Your task to perform on an android device: uninstall "McDonald's" Image 0: 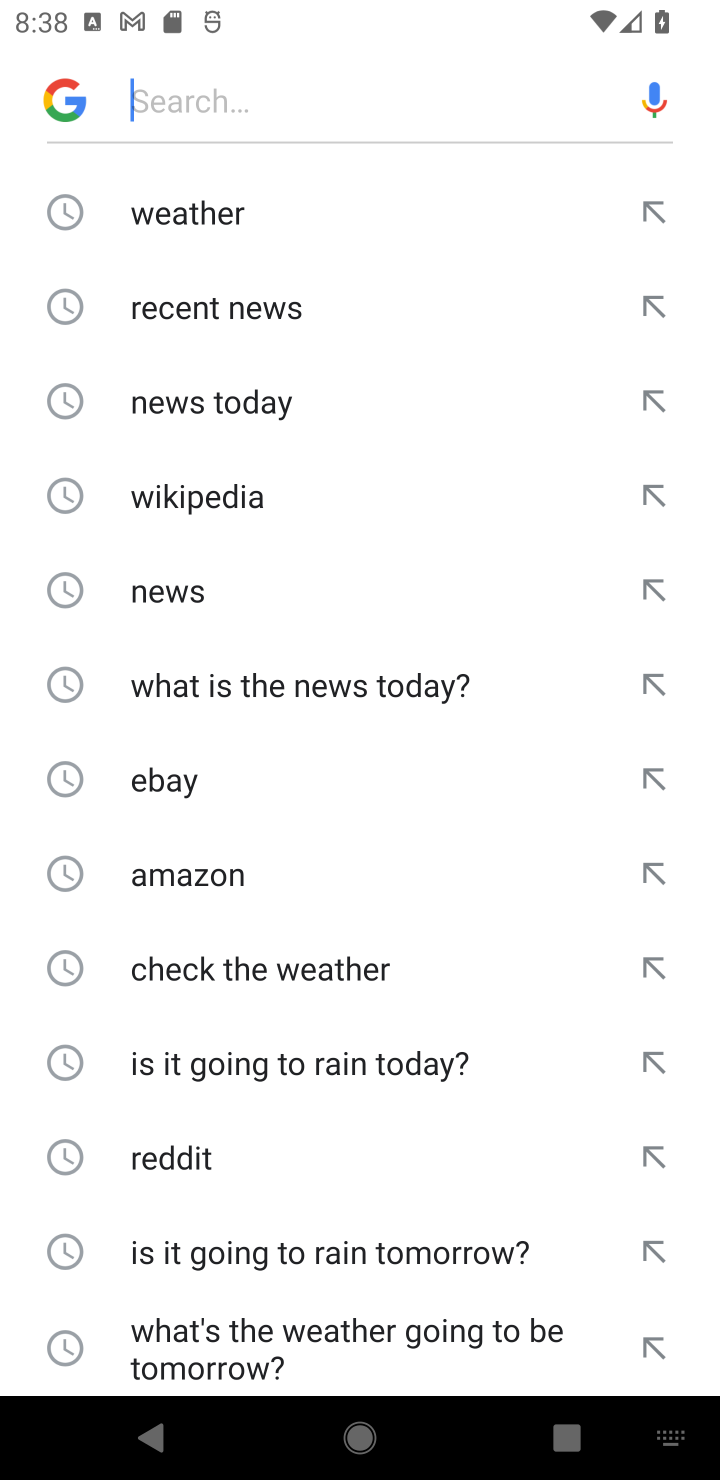
Step 0: press home button
Your task to perform on an android device: uninstall "McDonald's" Image 1: 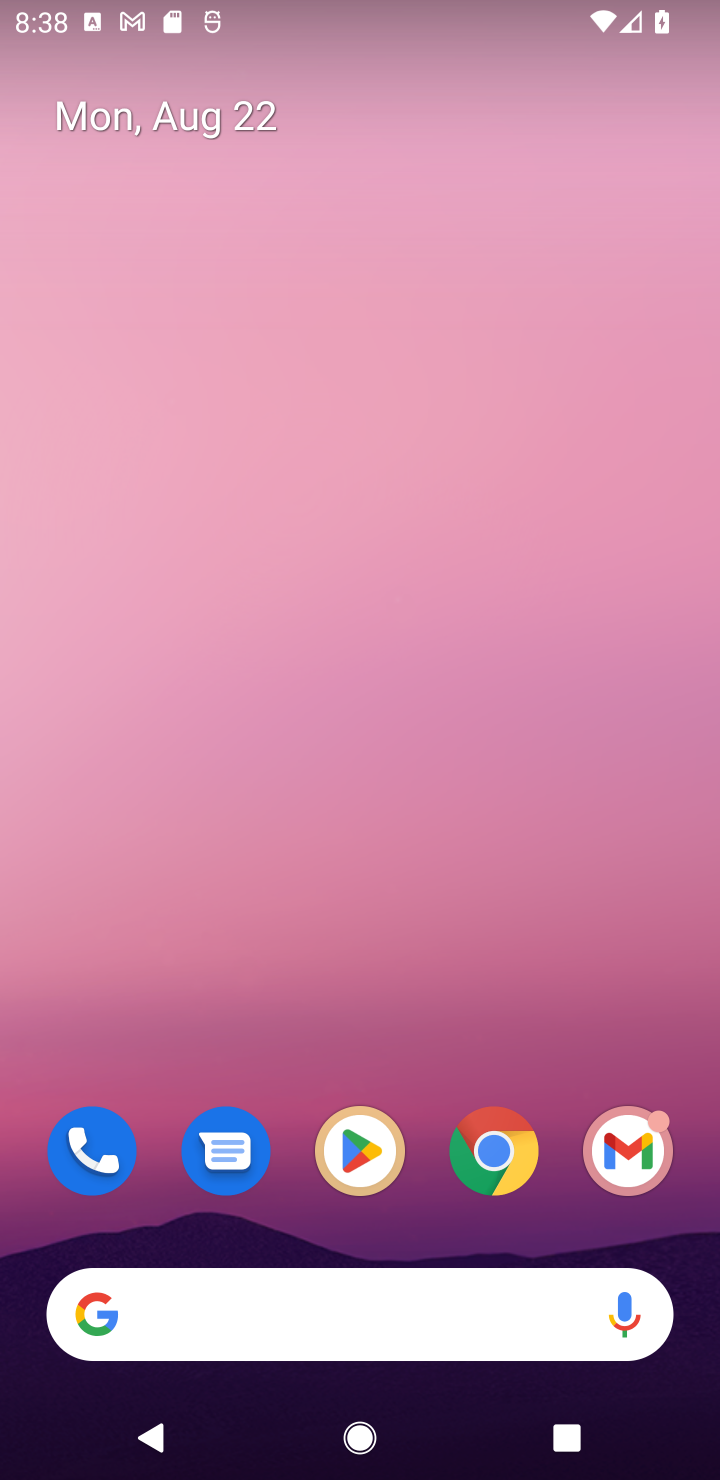
Step 1: click (366, 1158)
Your task to perform on an android device: uninstall "McDonald's" Image 2: 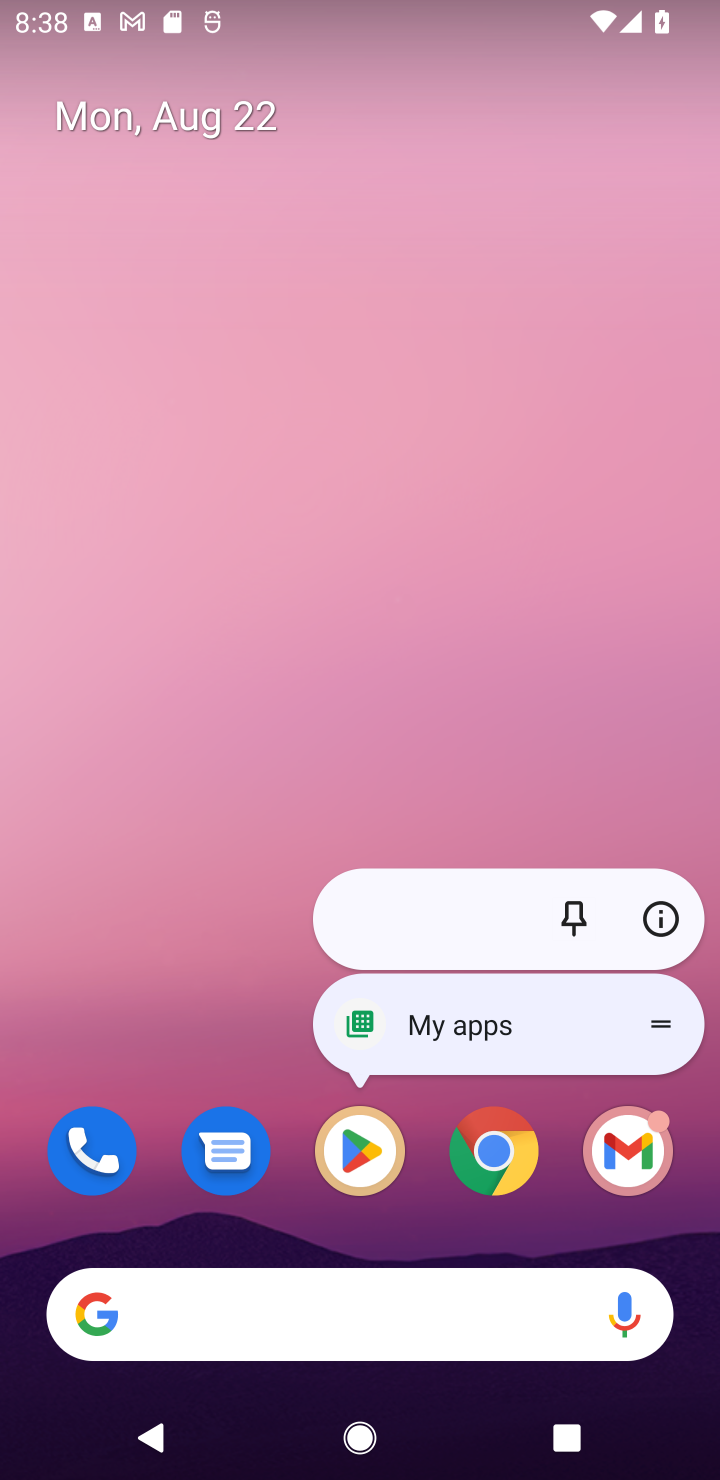
Step 2: click (368, 1118)
Your task to perform on an android device: uninstall "McDonald's" Image 3: 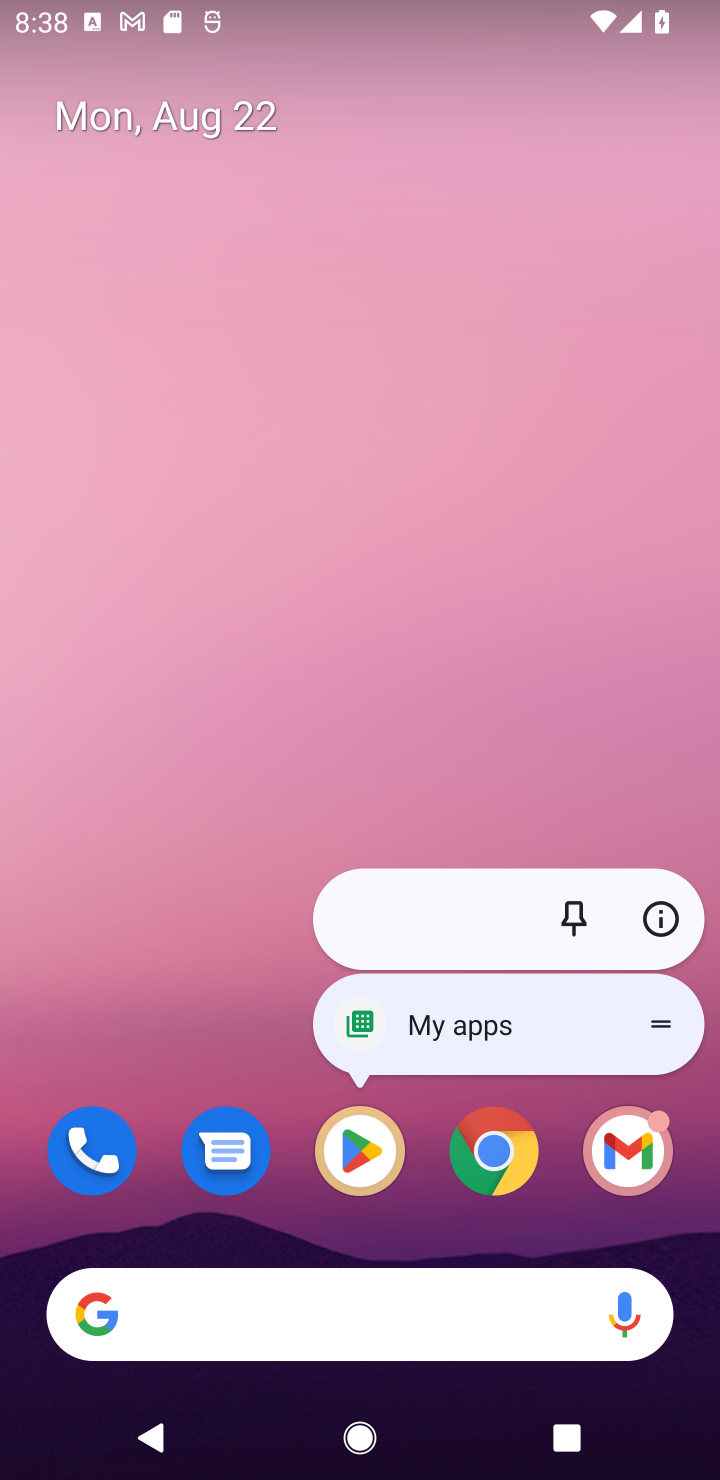
Step 3: click (358, 1142)
Your task to perform on an android device: uninstall "McDonald's" Image 4: 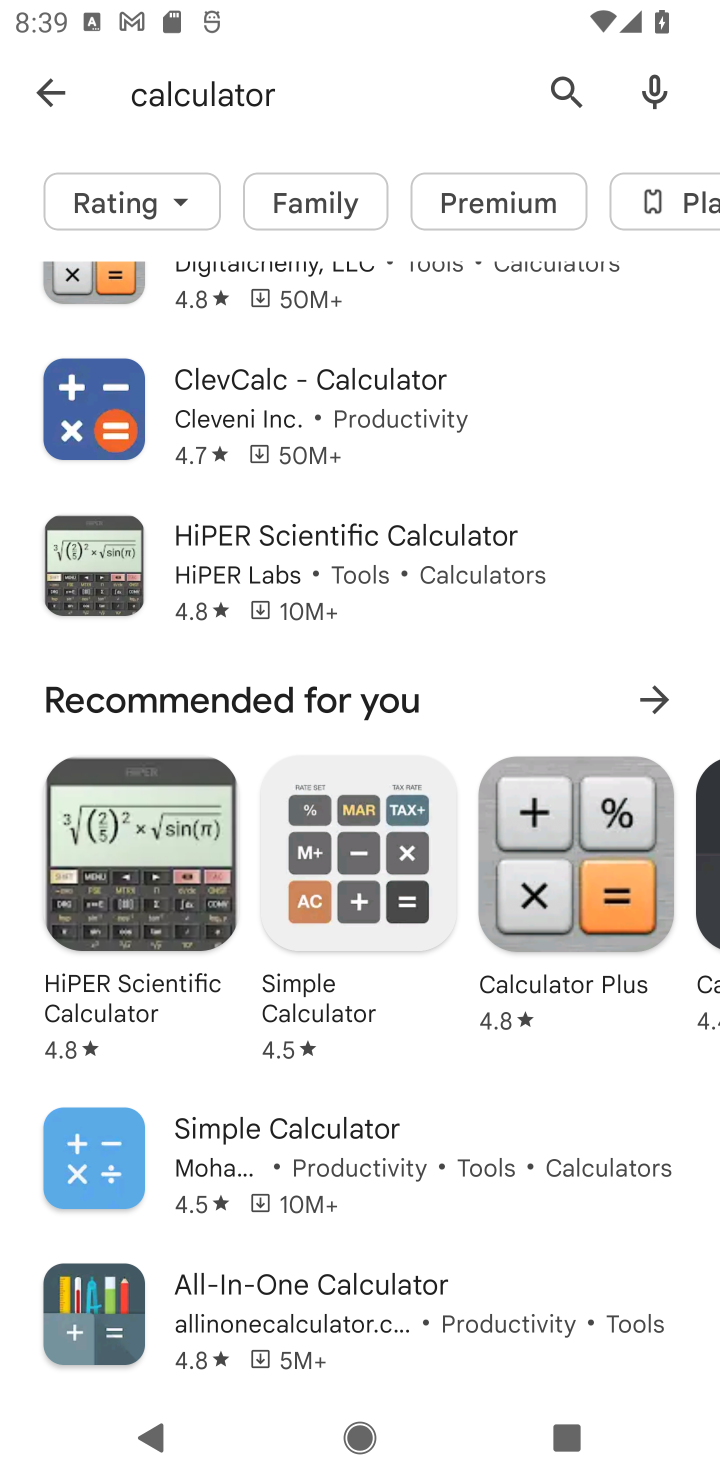
Step 4: click (564, 97)
Your task to perform on an android device: uninstall "McDonald's" Image 5: 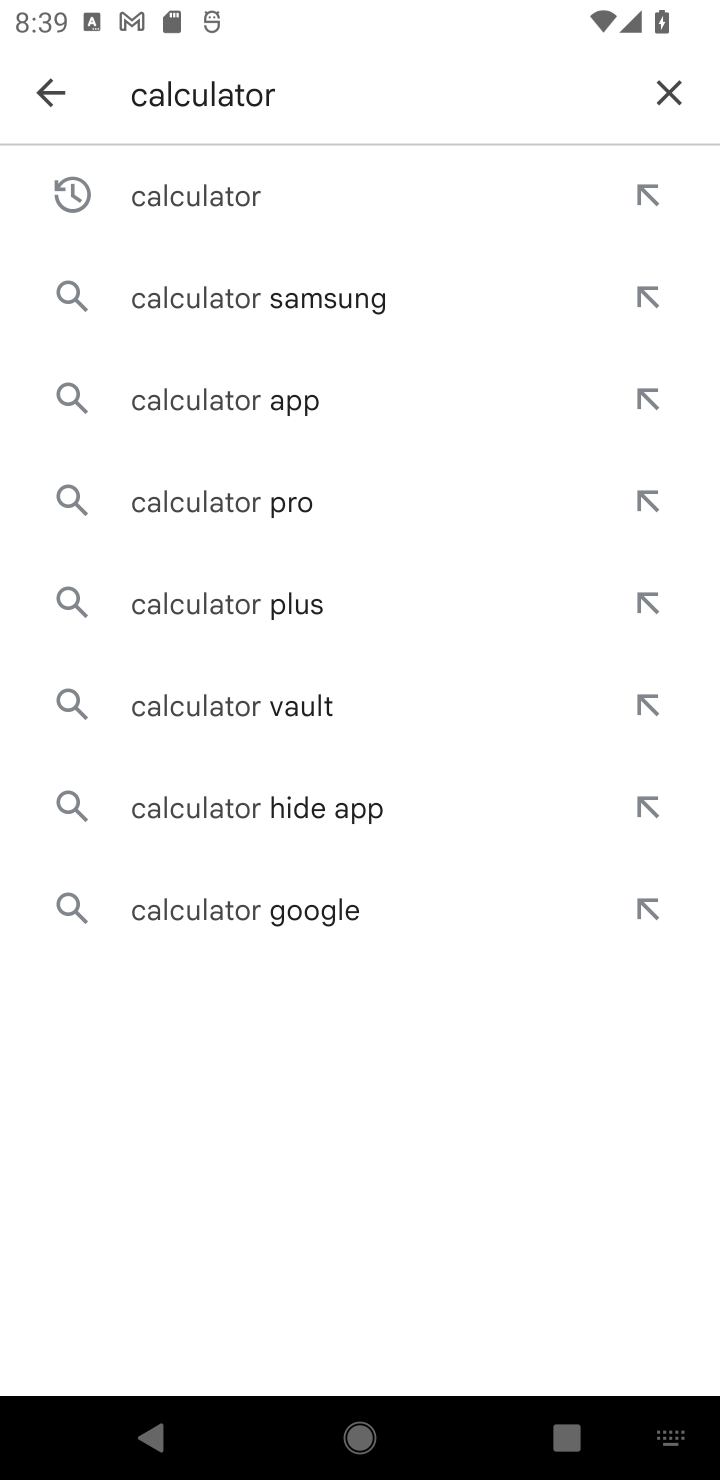
Step 5: click (656, 76)
Your task to perform on an android device: uninstall "McDonald's" Image 6: 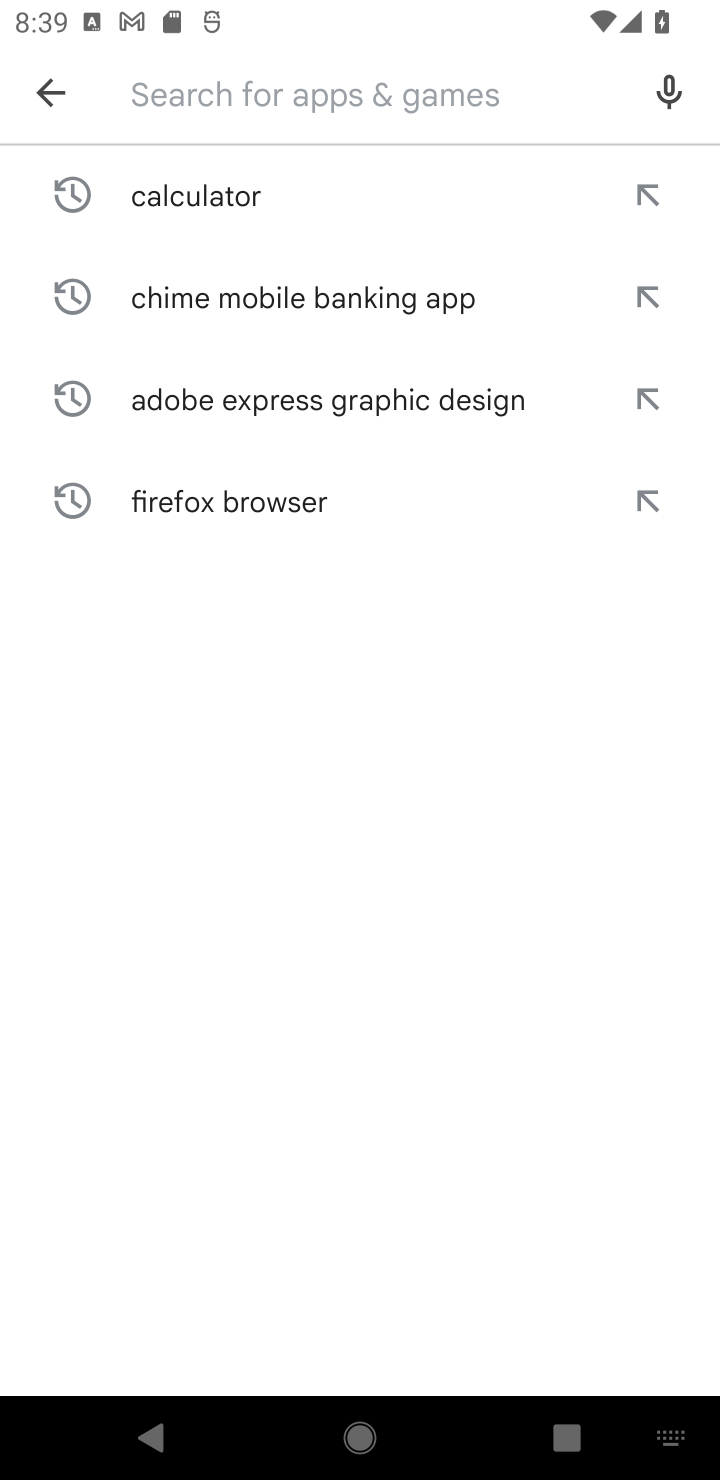
Step 6: type "McDonald's"
Your task to perform on an android device: uninstall "McDonald's" Image 7: 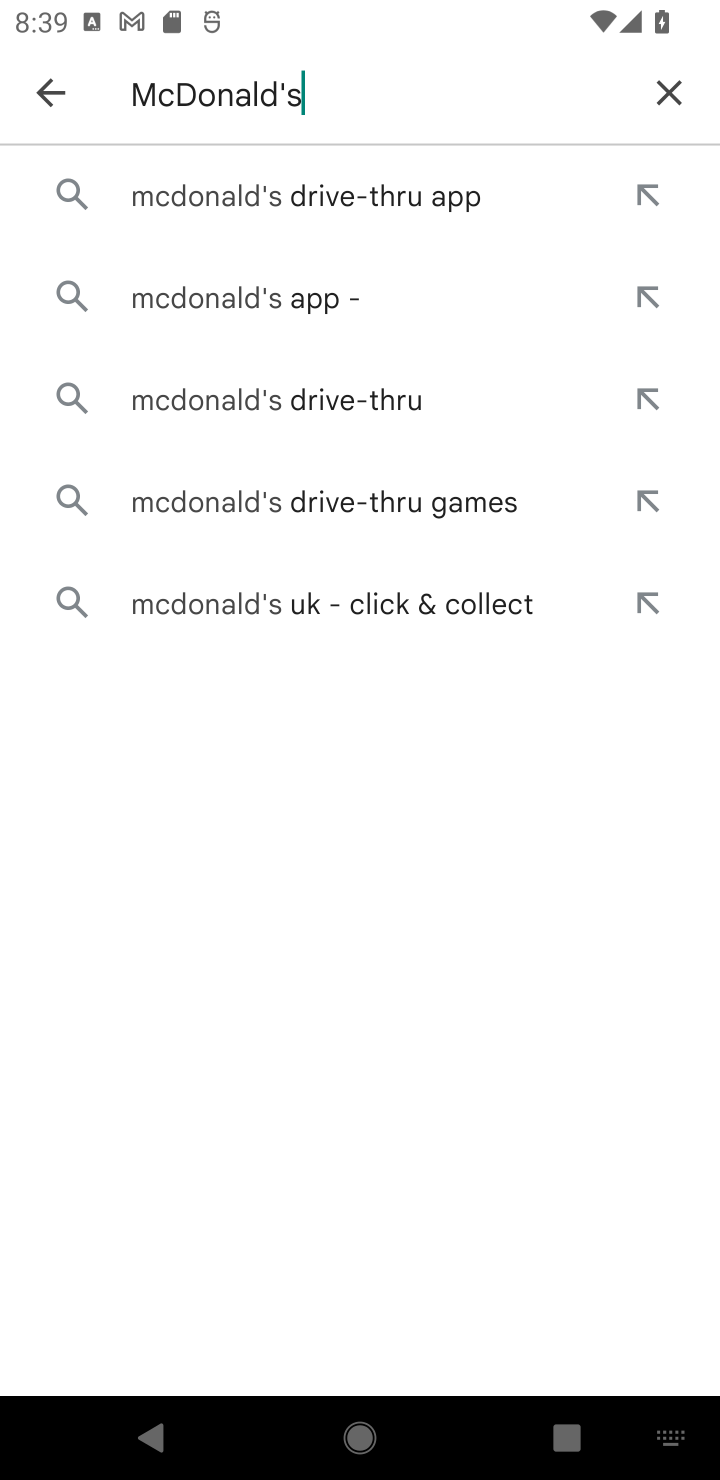
Step 7: click (223, 194)
Your task to perform on an android device: uninstall "McDonald's" Image 8: 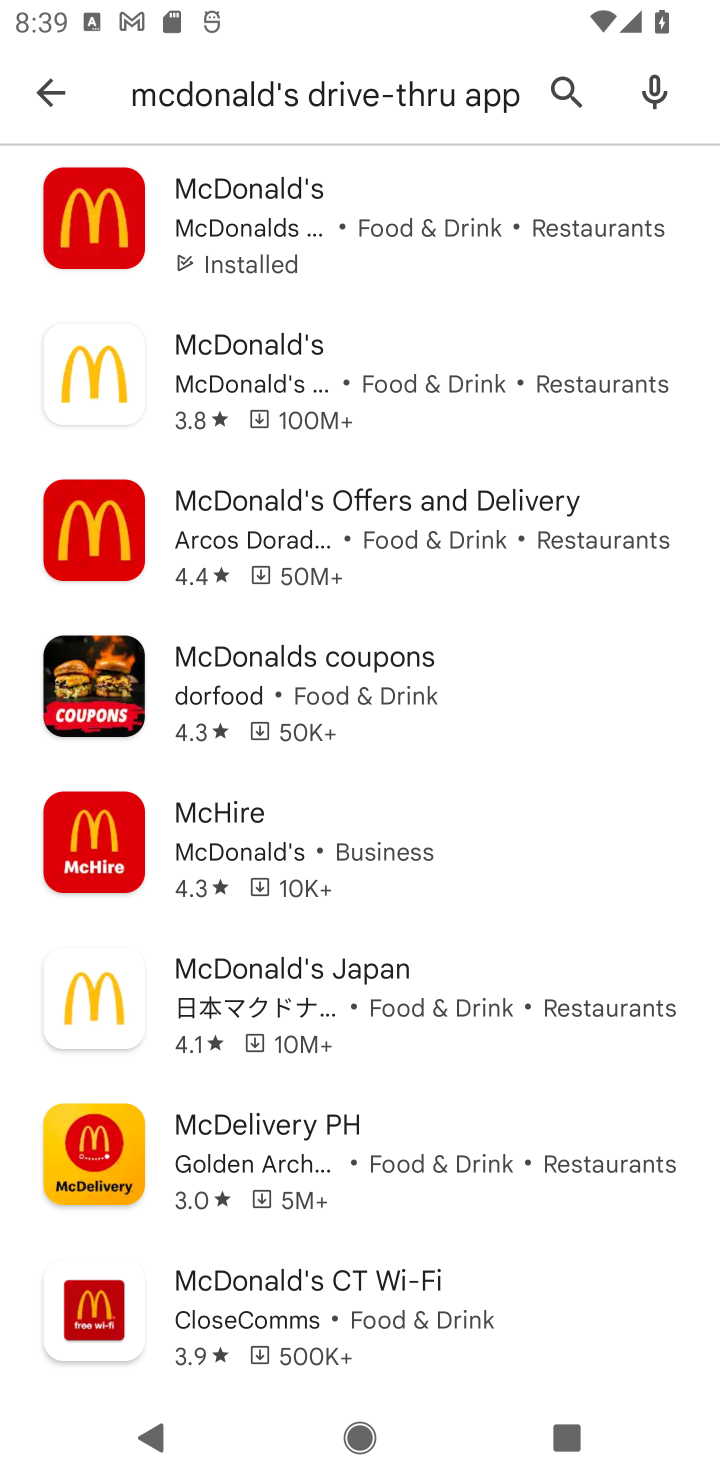
Step 8: click (304, 253)
Your task to perform on an android device: uninstall "McDonald's" Image 9: 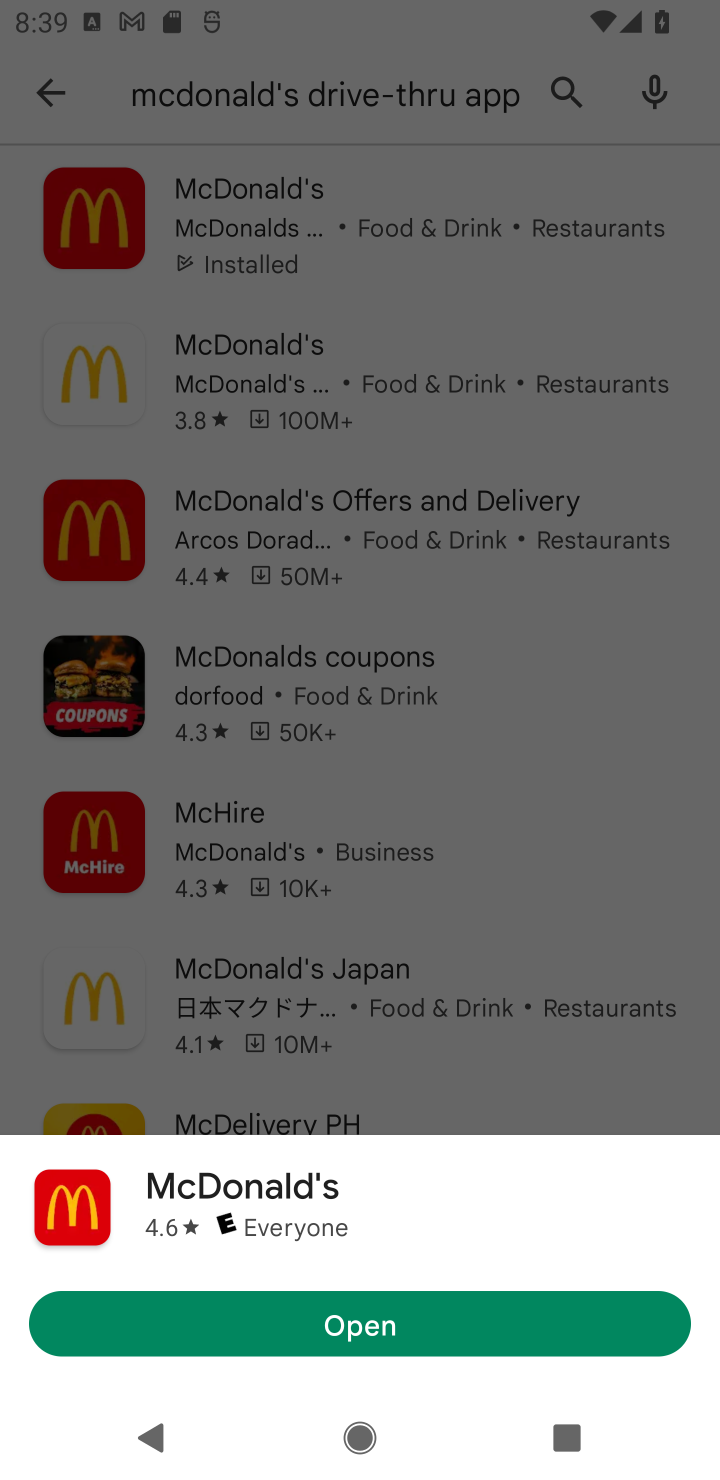
Step 9: click (93, 1193)
Your task to perform on an android device: uninstall "McDonald's" Image 10: 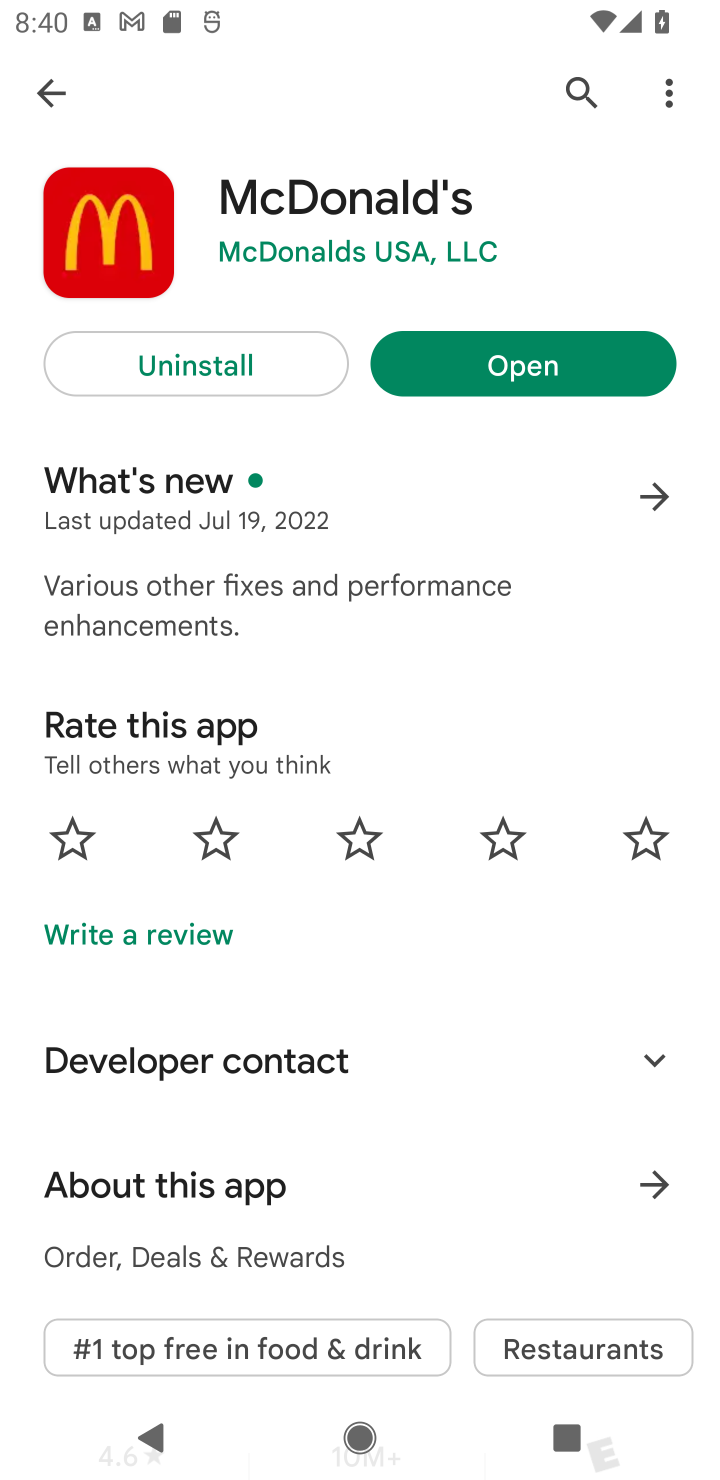
Step 10: click (205, 364)
Your task to perform on an android device: uninstall "McDonald's" Image 11: 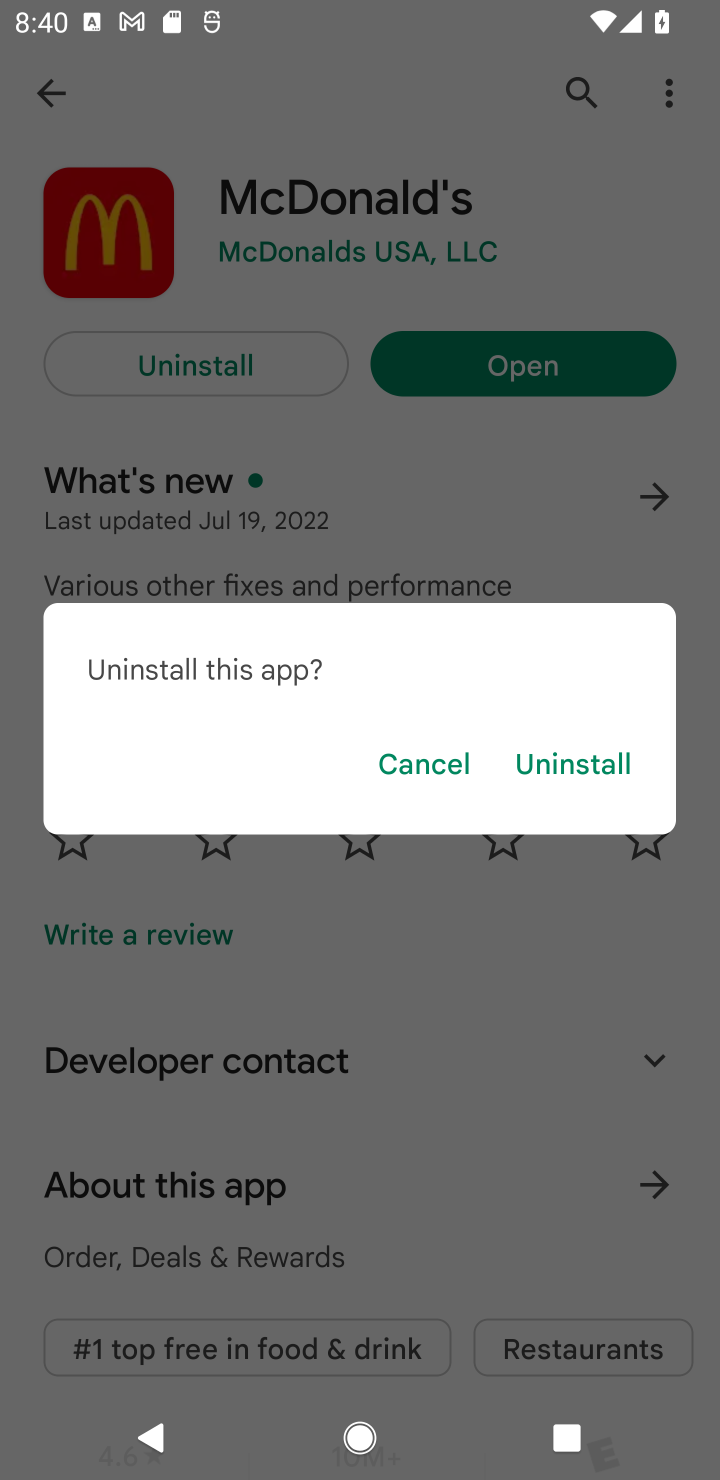
Step 11: click (541, 772)
Your task to perform on an android device: uninstall "McDonald's" Image 12: 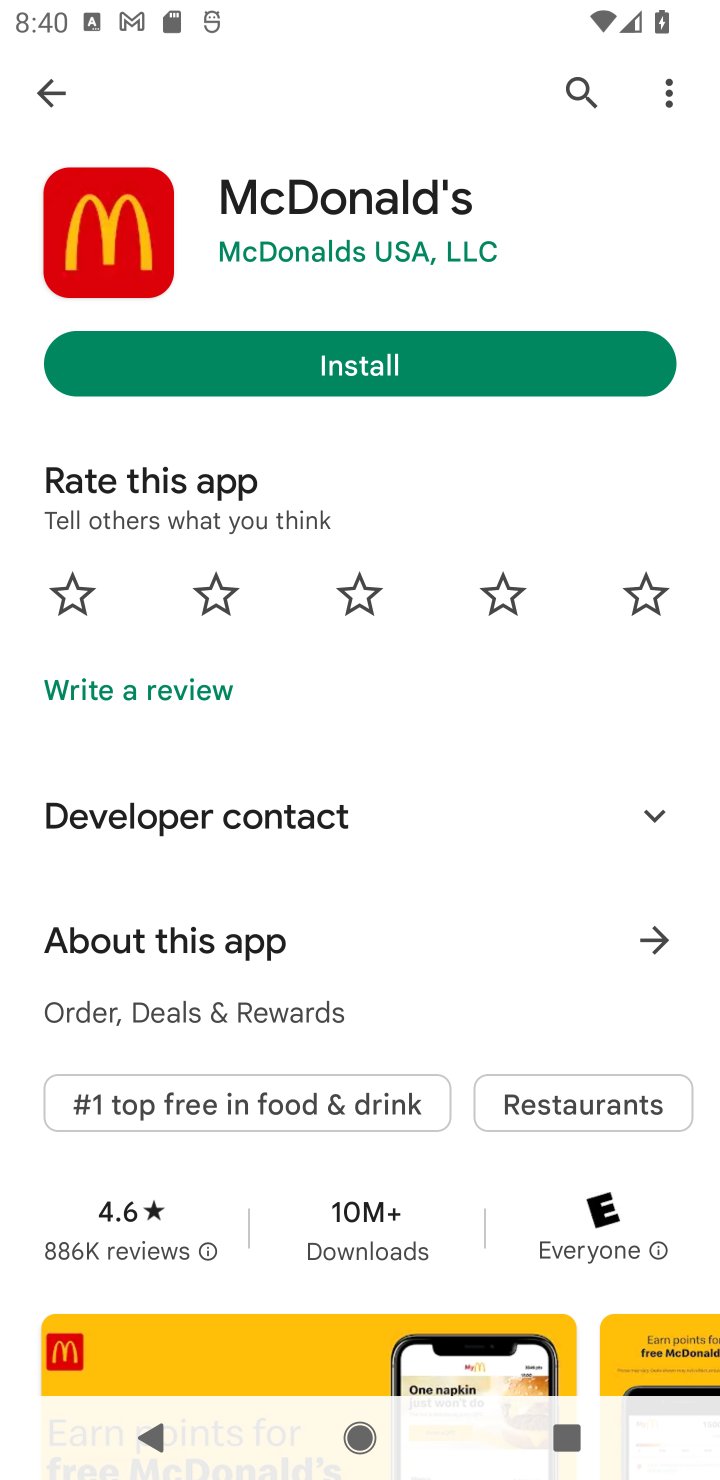
Step 12: task complete